Your task to perform on an android device: Open network settings Image 0: 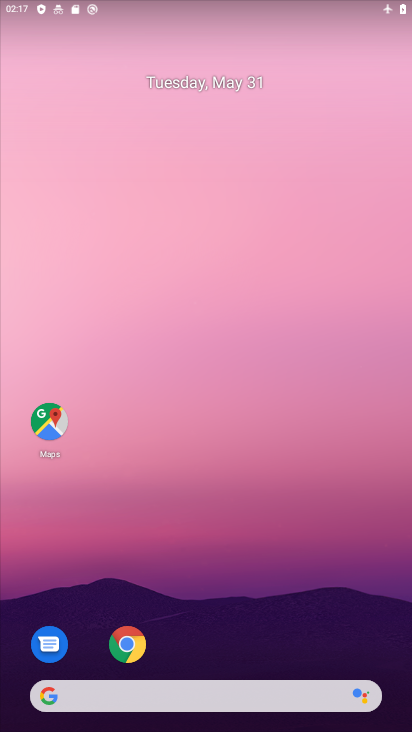
Step 0: drag from (256, 566) to (242, 128)
Your task to perform on an android device: Open network settings Image 1: 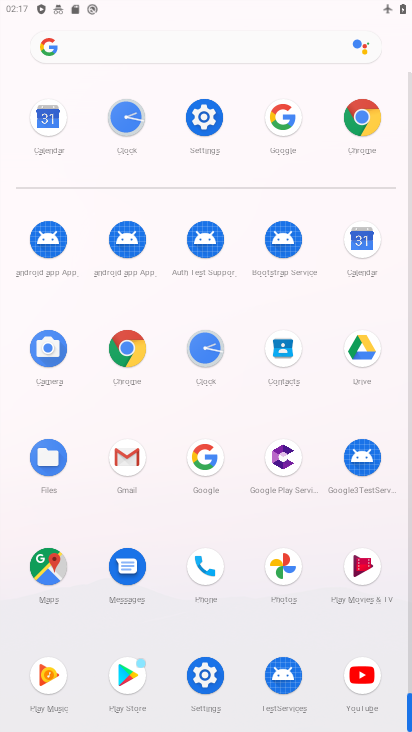
Step 1: click (201, 110)
Your task to perform on an android device: Open network settings Image 2: 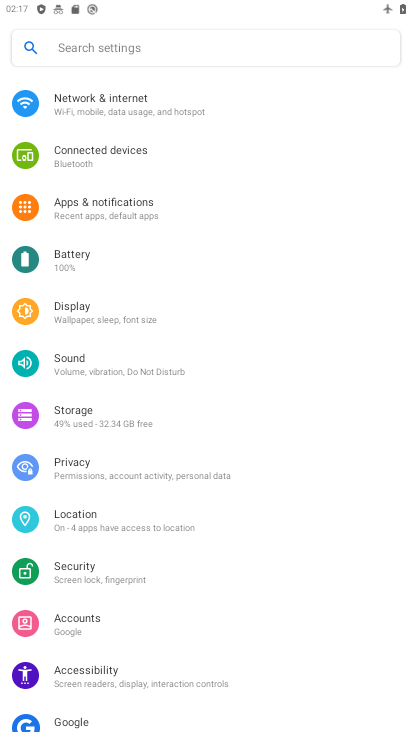
Step 2: click (98, 109)
Your task to perform on an android device: Open network settings Image 3: 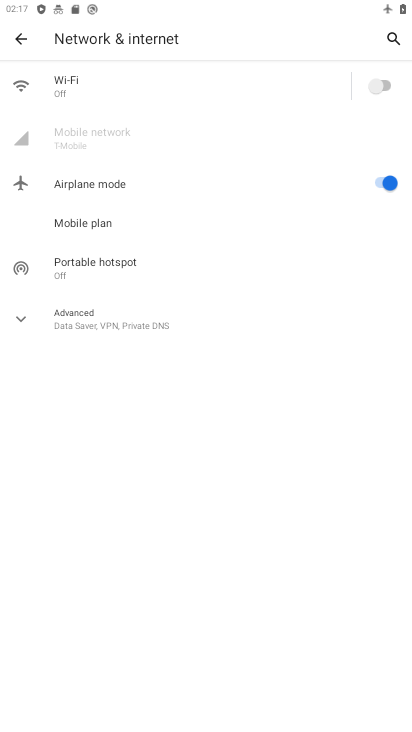
Step 3: task complete